Your task to perform on an android device: open app "WhatsApp Messenger" (install if not already installed), go to login, and select forgot password Image 0: 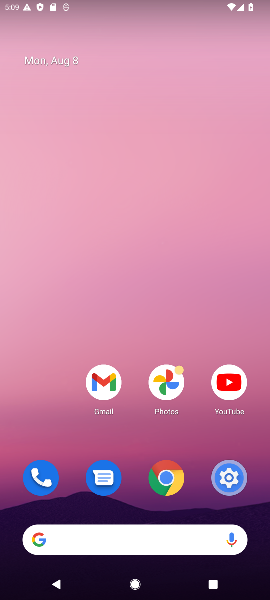
Step 0: drag from (126, 341) to (159, 0)
Your task to perform on an android device: open app "WhatsApp Messenger" (install if not already installed), go to login, and select forgot password Image 1: 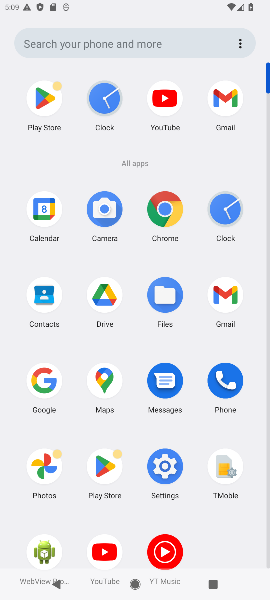
Step 1: click (102, 465)
Your task to perform on an android device: open app "WhatsApp Messenger" (install if not already installed), go to login, and select forgot password Image 2: 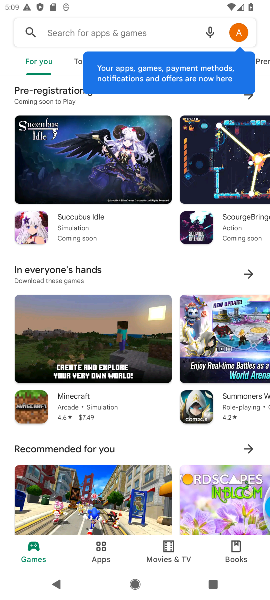
Step 2: click (133, 33)
Your task to perform on an android device: open app "WhatsApp Messenger" (install if not already installed), go to login, and select forgot password Image 3: 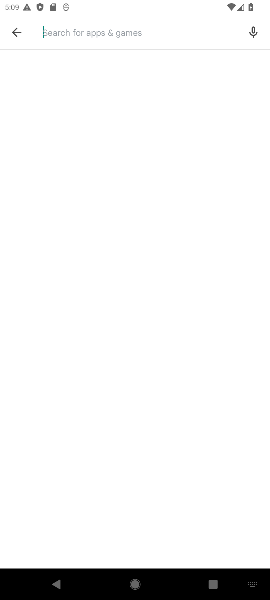
Step 3: type "shatsapp messenger"
Your task to perform on an android device: open app "WhatsApp Messenger" (install if not already installed), go to login, and select forgot password Image 4: 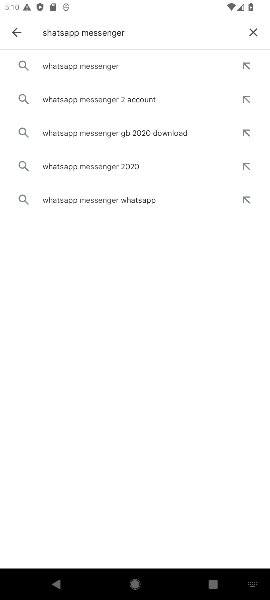
Step 4: click (105, 61)
Your task to perform on an android device: open app "WhatsApp Messenger" (install if not already installed), go to login, and select forgot password Image 5: 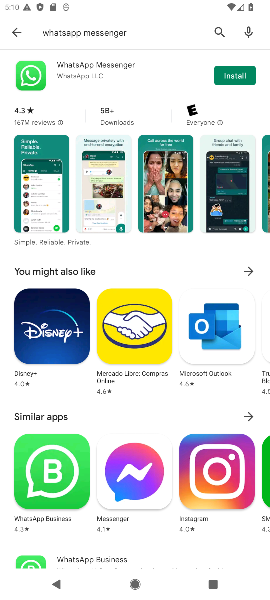
Step 5: click (248, 74)
Your task to perform on an android device: open app "WhatsApp Messenger" (install if not already installed), go to login, and select forgot password Image 6: 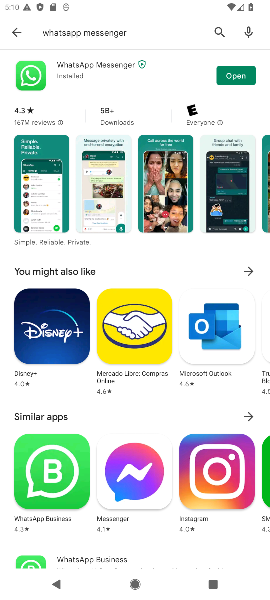
Step 6: click (246, 72)
Your task to perform on an android device: open app "WhatsApp Messenger" (install if not already installed), go to login, and select forgot password Image 7: 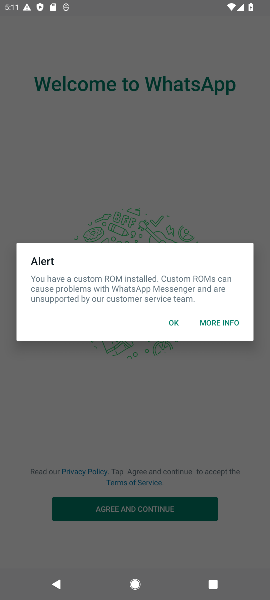
Step 7: click (174, 321)
Your task to perform on an android device: open app "WhatsApp Messenger" (install if not already installed), go to login, and select forgot password Image 8: 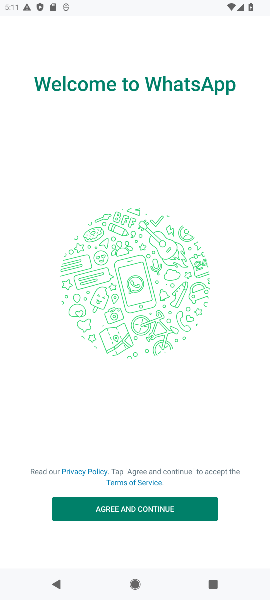
Step 8: click (182, 505)
Your task to perform on an android device: open app "WhatsApp Messenger" (install if not already installed), go to login, and select forgot password Image 9: 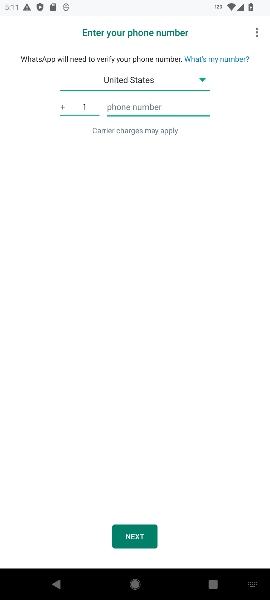
Step 9: task complete